Your task to perform on an android device: Search for sushi restaurants on Maps Image 0: 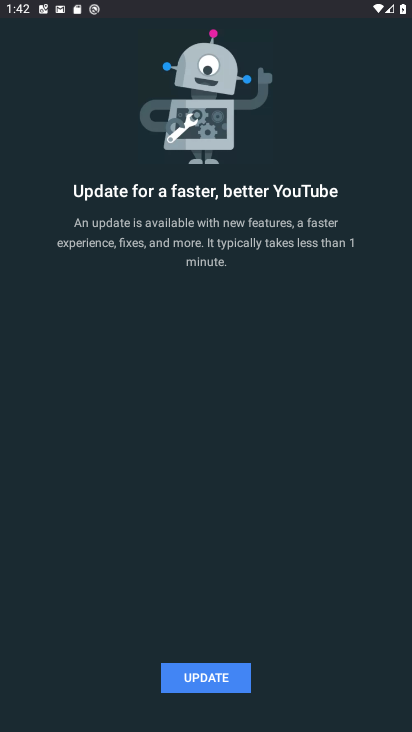
Step 0: press back button
Your task to perform on an android device: Search for sushi restaurants on Maps Image 1: 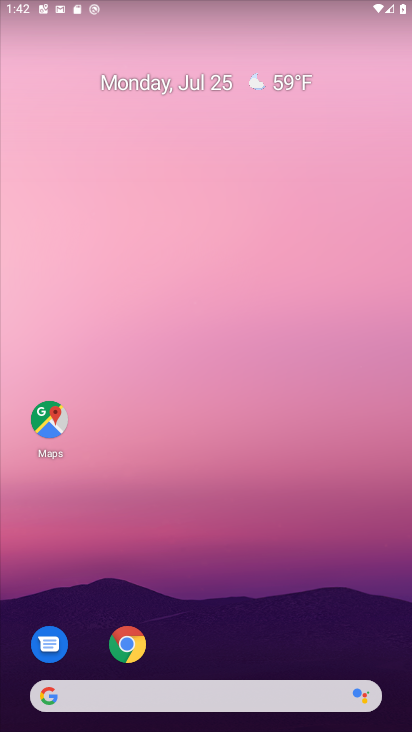
Step 1: click (48, 407)
Your task to perform on an android device: Search for sushi restaurants on Maps Image 2: 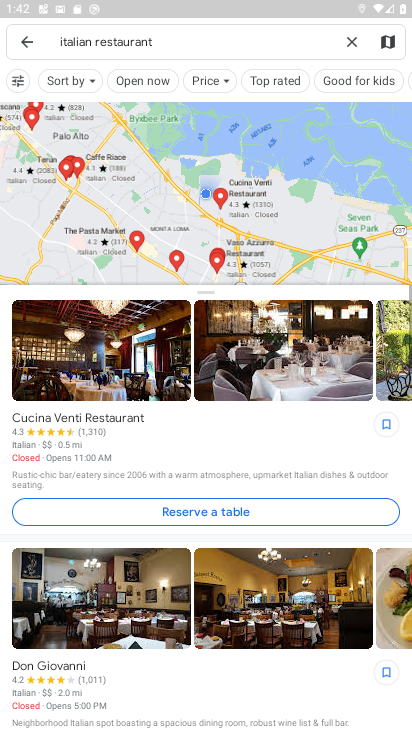
Step 2: click (357, 47)
Your task to perform on an android device: Search for sushi restaurants on Maps Image 3: 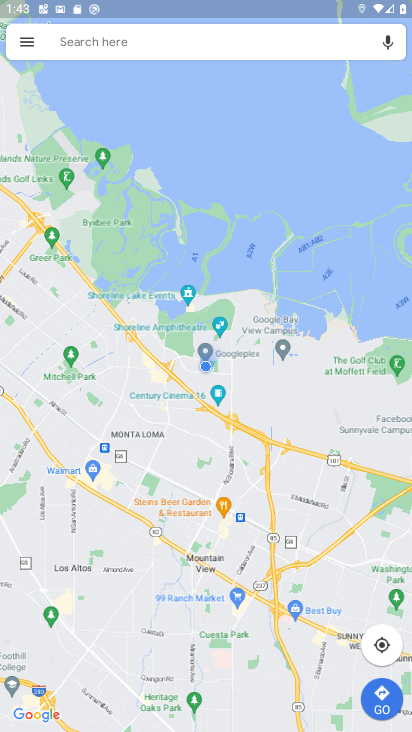
Step 3: click (240, 31)
Your task to perform on an android device: Search for sushi restaurants on Maps Image 4: 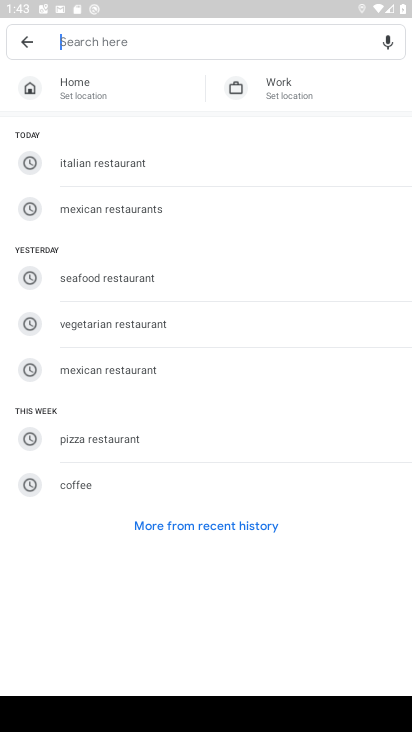
Step 4: type "sushi restaurants"
Your task to perform on an android device: Search for sushi restaurants on Maps Image 5: 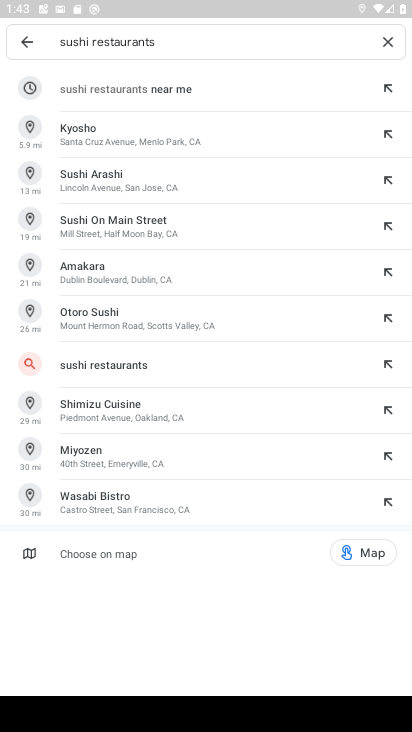
Step 5: click (63, 358)
Your task to perform on an android device: Search for sushi restaurants on Maps Image 6: 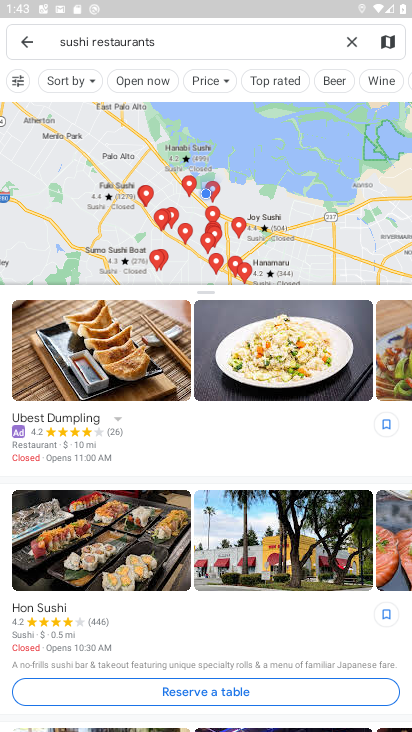
Step 6: task complete